Your task to perform on an android device: remove spam from my inbox in the gmail app Image 0: 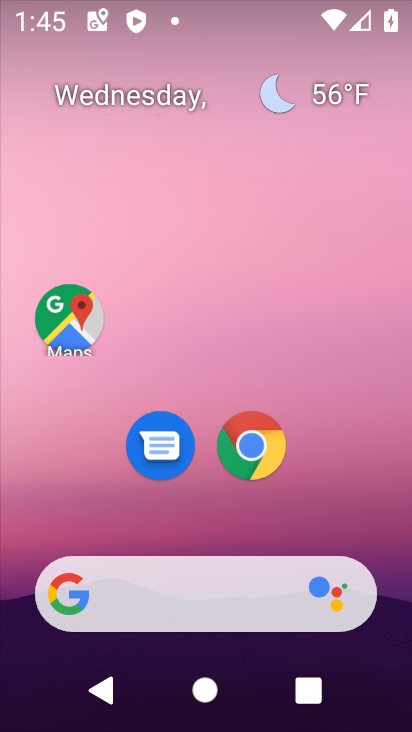
Step 0: drag from (218, 548) to (191, 20)
Your task to perform on an android device: remove spam from my inbox in the gmail app Image 1: 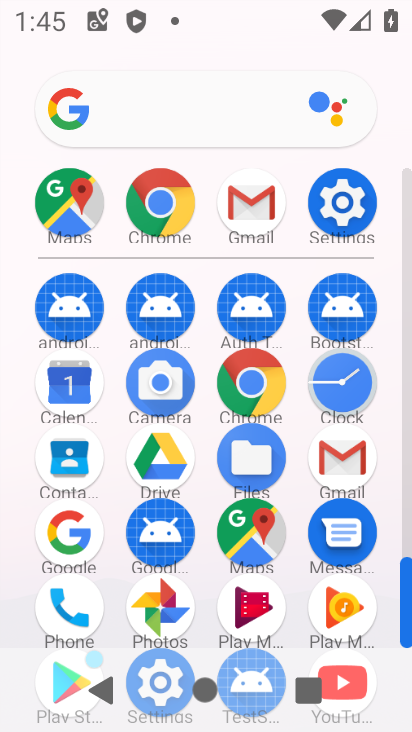
Step 1: click (356, 454)
Your task to perform on an android device: remove spam from my inbox in the gmail app Image 2: 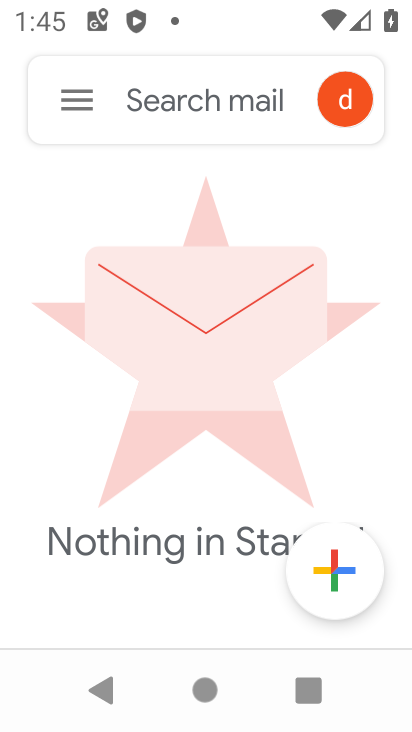
Step 2: click (62, 106)
Your task to perform on an android device: remove spam from my inbox in the gmail app Image 3: 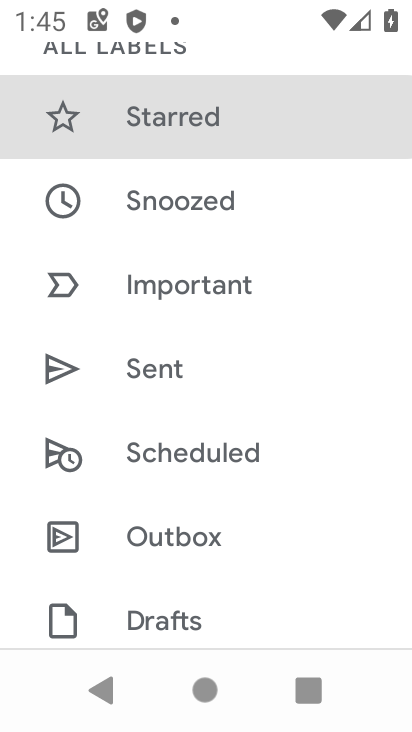
Step 3: drag from (76, 521) to (27, 189)
Your task to perform on an android device: remove spam from my inbox in the gmail app Image 4: 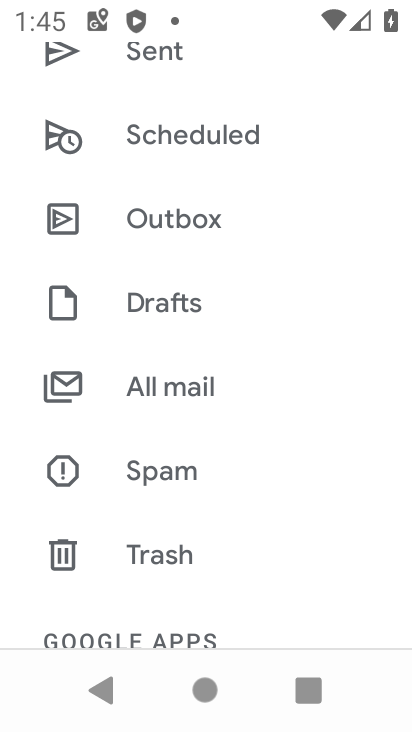
Step 4: click (169, 471)
Your task to perform on an android device: remove spam from my inbox in the gmail app Image 5: 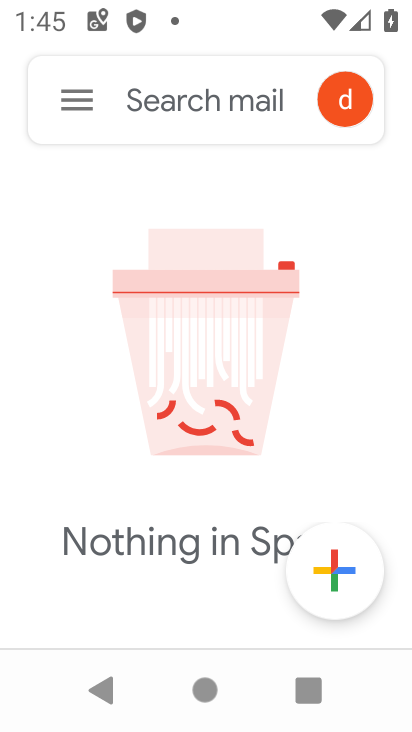
Step 5: task complete